Your task to perform on an android device: Open Google Chrome and open the bookmarks view Image 0: 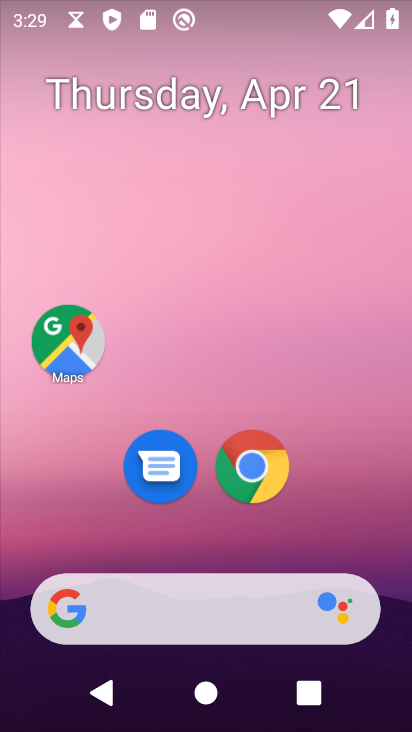
Step 0: click (248, 456)
Your task to perform on an android device: Open Google Chrome and open the bookmarks view Image 1: 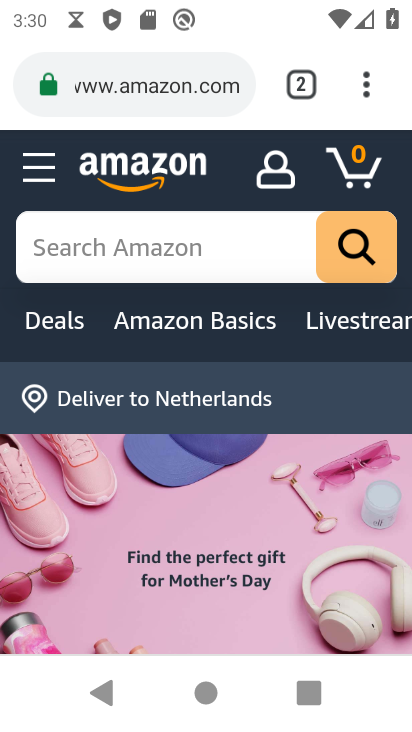
Step 1: task complete